Your task to perform on an android device: turn pop-ups off in chrome Image 0: 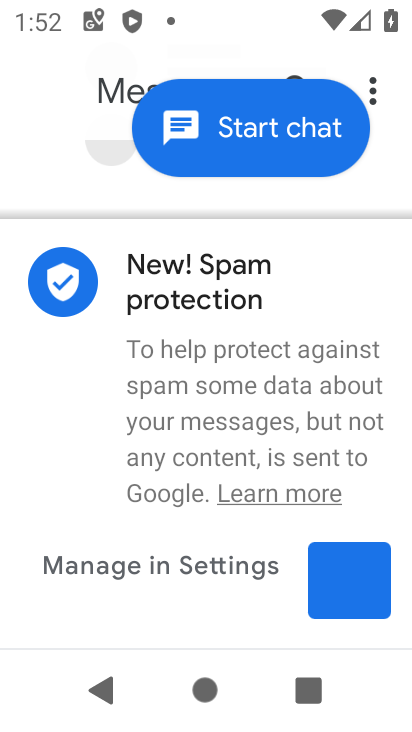
Step 0: click (370, 86)
Your task to perform on an android device: turn pop-ups off in chrome Image 1: 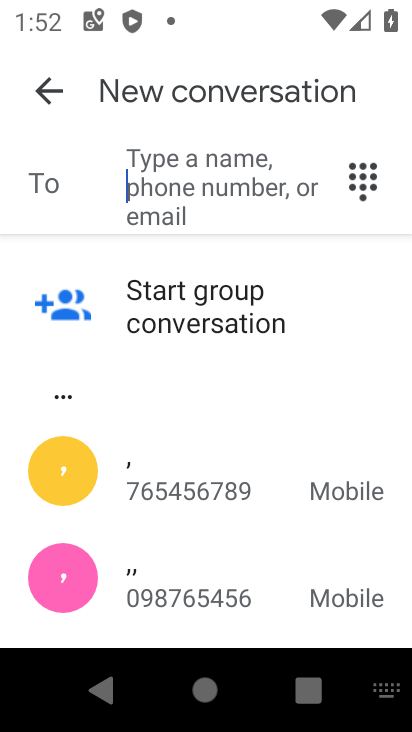
Step 1: press home button
Your task to perform on an android device: turn pop-ups off in chrome Image 2: 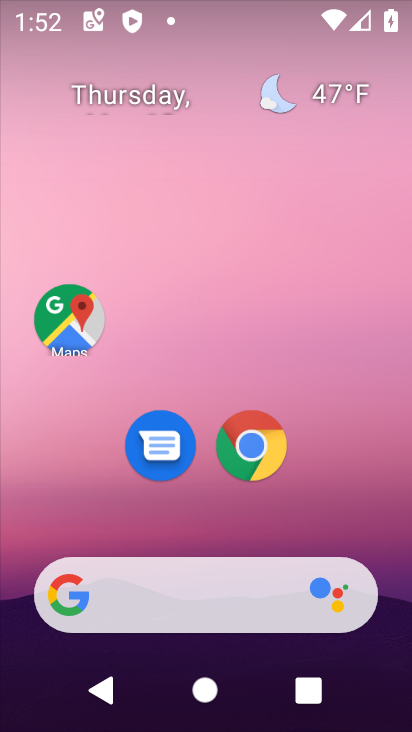
Step 2: click (236, 461)
Your task to perform on an android device: turn pop-ups off in chrome Image 3: 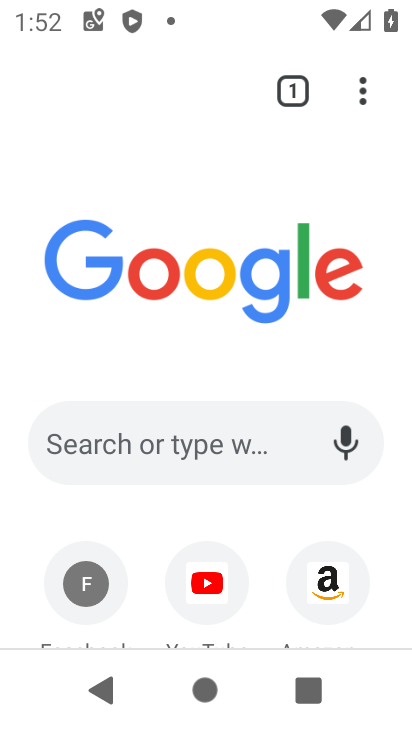
Step 3: drag from (358, 96) to (139, 461)
Your task to perform on an android device: turn pop-ups off in chrome Image 4: 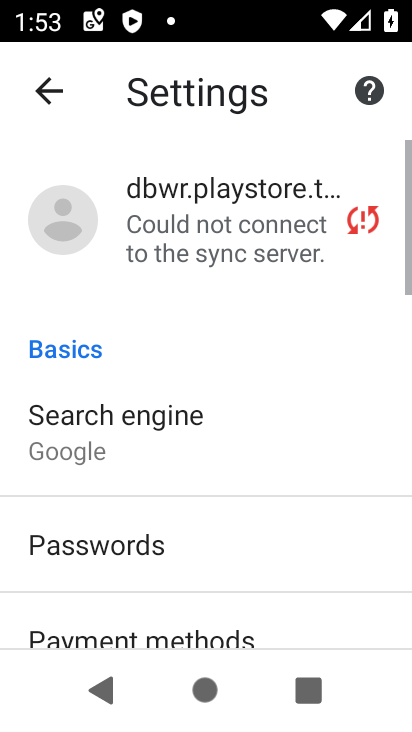
Step 4: drag from (211, 566) to (294, 272)
Your task to perform on an android device: turn pop-ups off in chrome Image 5: 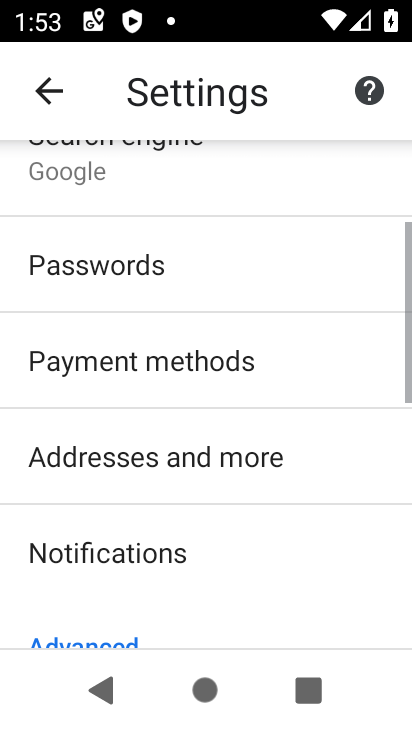
Step 5: drag from (248, 537) to (293, 353)
Your task to perform on an android device: turn pop-ups off in chrome Image 6: 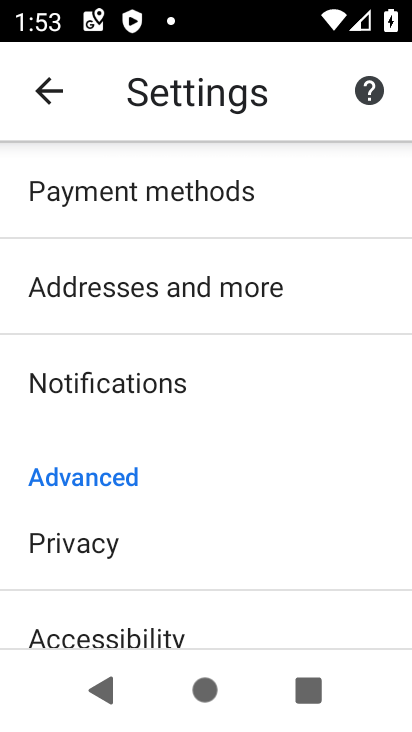
Step 6: drag from (282, 518) to (303, 331)
Your task to perform on an android device: turn pop-ups off in chrome Image 7: 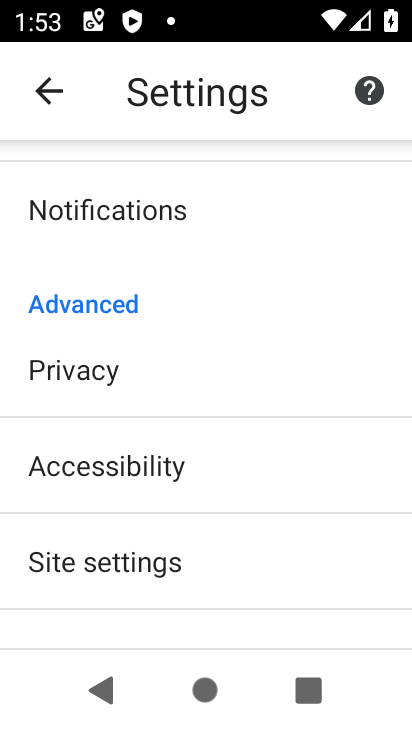
Step 7: drag from (218, 485) to (277, 354)
Your task to perform on an android device: turn pop-ups off in chrome Image 8: 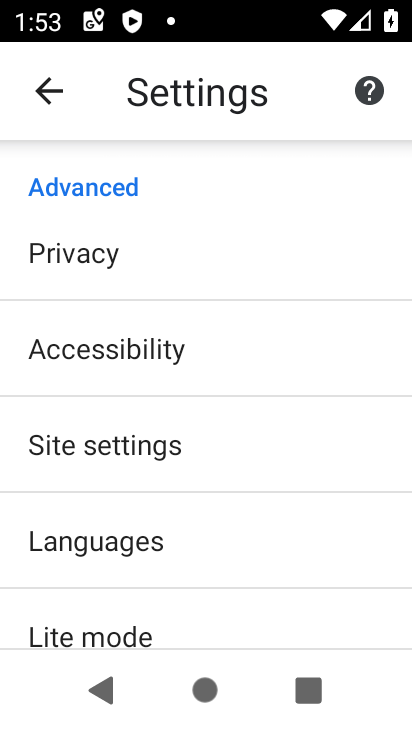
Step 8: click (251, 444)
Your task to perform on an android device: turn pop-ups off in chrome Image 9: 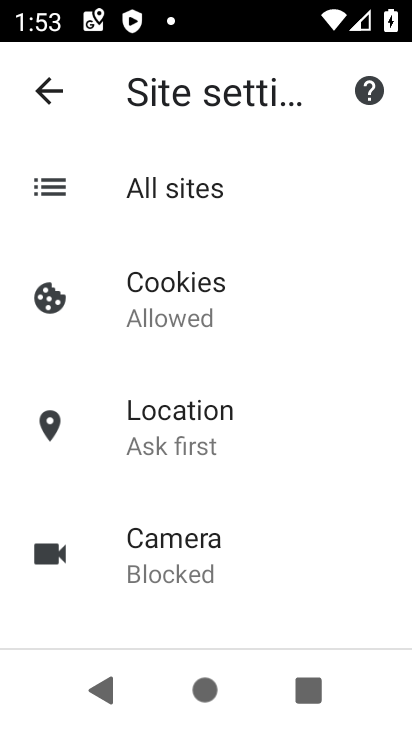
Step 9: drag from (253, 507) to (333, 255)
Your task to perform on an android device: turn pop-ups off in chrome Image 10: 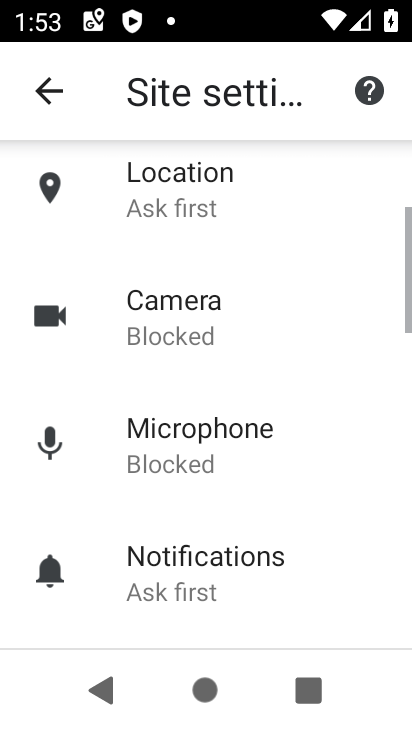
Step 10: drag from (281, 454) to (323, 249)
Your task to perform on an android device: turn pop-ups off in chrome Image 11: 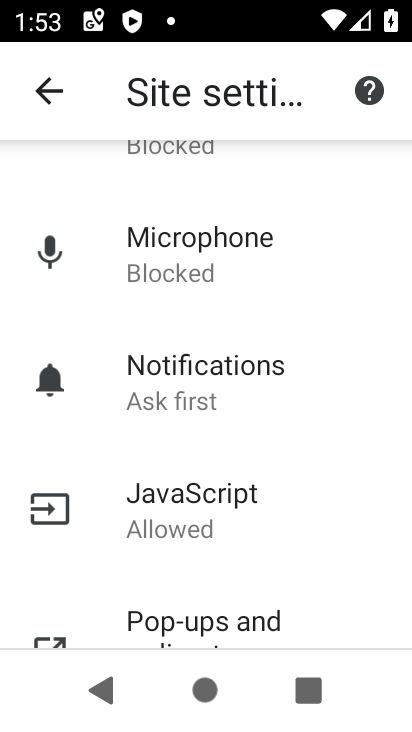
Step 11: click (216, 611)
Your task to perform on an android device: turn pop-ups off in chrome Image 12: 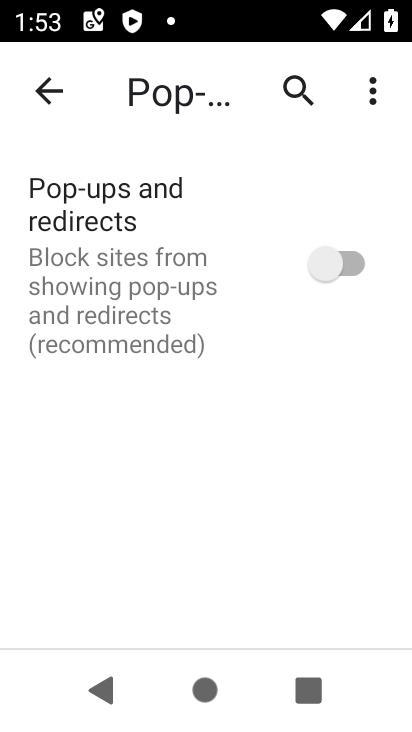
Step 12: task complete